Your task to perform on an android device: turn pop-ups on in chrome Image 0: 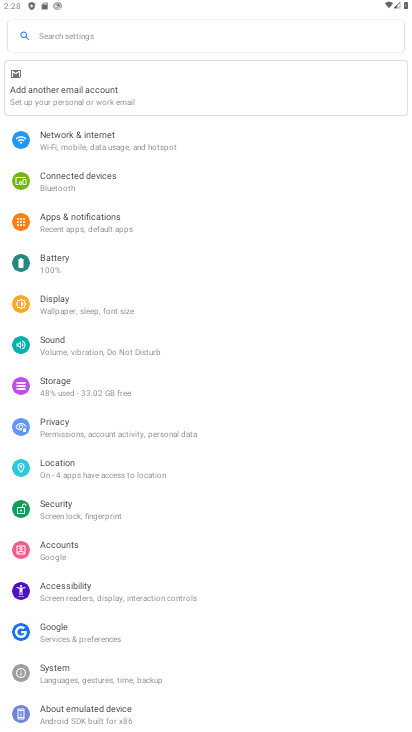
Step 0: press home button
Your task to perform on an android device: turn pop-ups on in chrome Image 1: 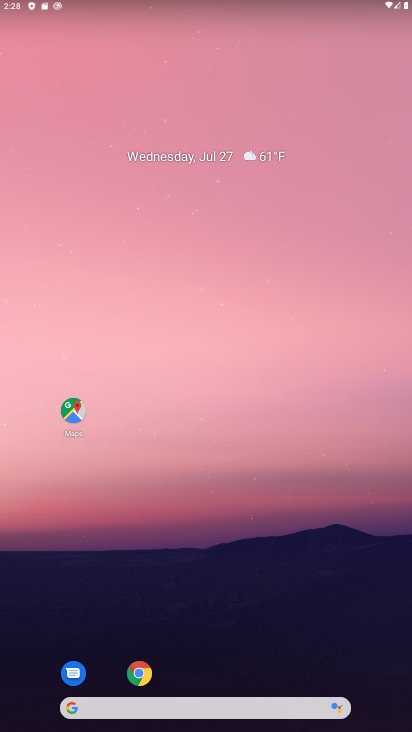
Step 1: click (143, 678)
Your task to perform on an android device: turn pop-ups on in chrome Image 2: 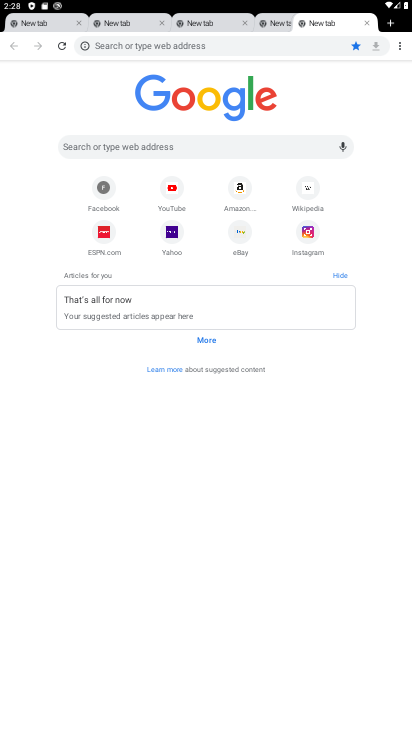
Step 2: click (397, 46)
Your task to perform on an android device: turn pop-ups on in chrome Image 3: 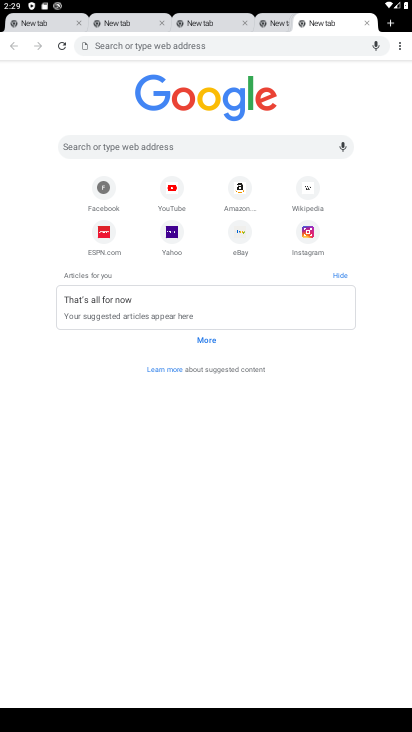
Step 3: click (400, 41)
Your task to perform on an android device: turn pop-ups on in chrome Image 4: 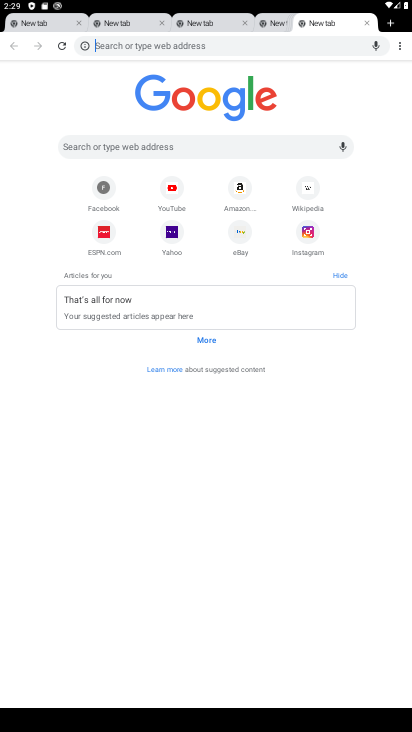
Step 4: click (394, 44)
Your task to perform on an android device: turn pop-ups on in chrome Image 5: 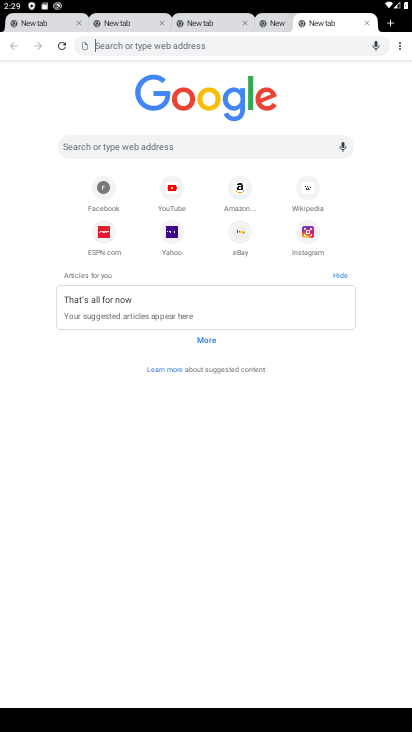
Step 5: click (397, 48)
Your task to perform on an android device: turn pop-ups on in chrome Image 6: 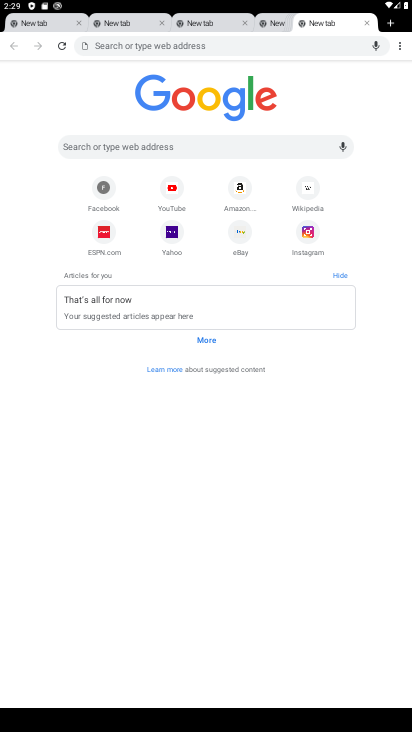
Step 6: task complete